Your task to perform on an android device: Is it going to rain this weekend? Image 0: 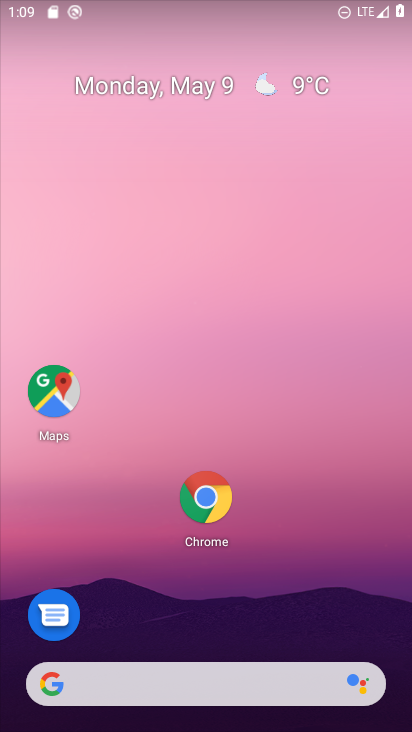
Step 0: click (303, 82)
Your task to perform on an android device: Is it going to rain this weekend? Image 1: 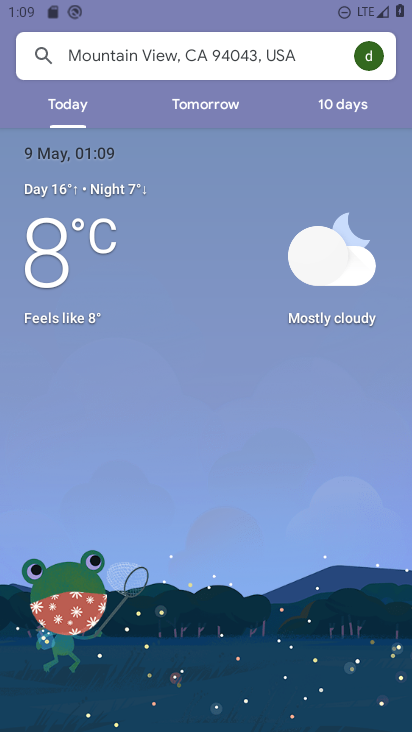
Step 1: click (308, 112)
Your task to perform on an android device: Is it going to rain this weekend? Image 2: 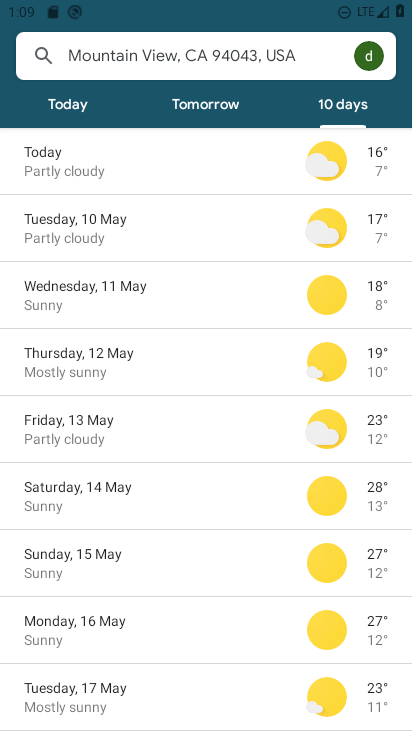
Step 2: task complete